Your task to perform on an android device: delete the emails in spam in the gmail app Image 0: 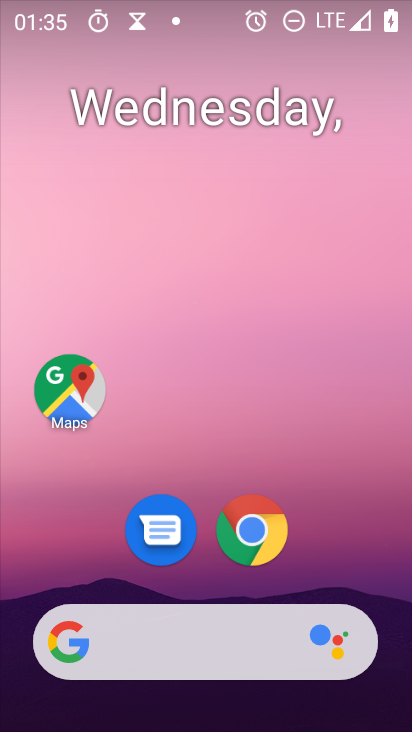
Step 0: drag from (206, 618) to (239, 33)
Your task to perform on an android device: delete the emails in spam in the gmail app Image 1: 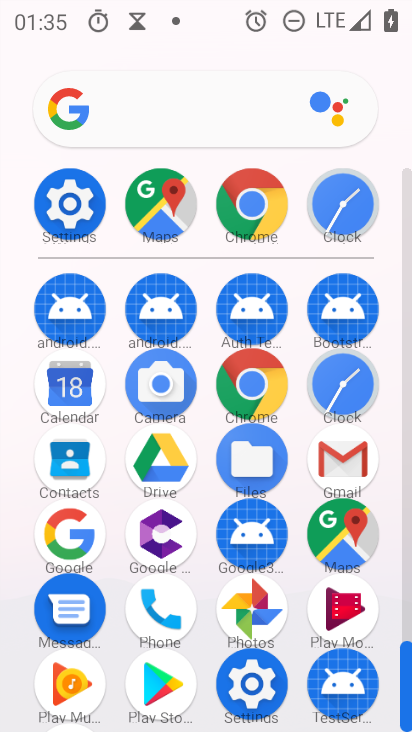
Step 1: click (334, 457)
Your task to perform on an android device: delete the emails in spam in the gmail app Image 2: 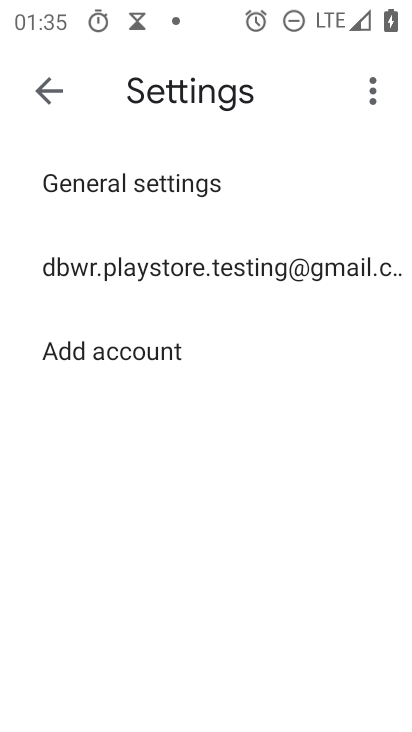
Step 2: press back button
Your task to perform on an android device: delete the emails in spam in the gmail app Image 3: 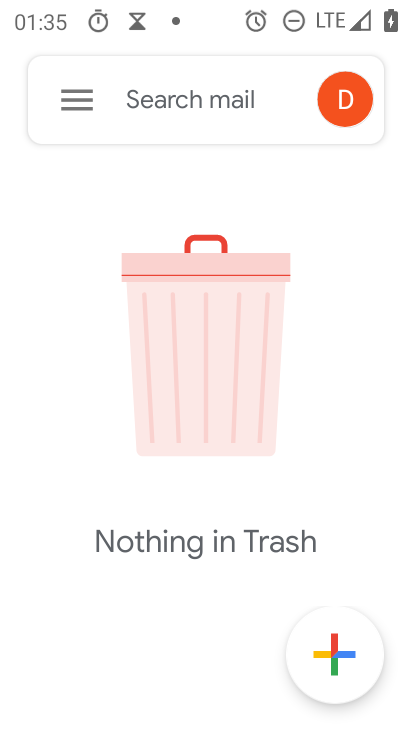
Step 3: click (82, 99)
Your task to perform on an android device: delete the emails in spam in the gmail app Image 4: 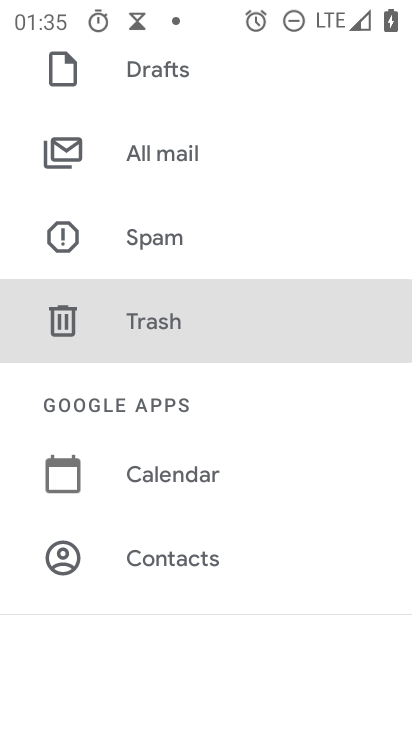
Step 4: click (235, 255)
Your task to perform on an android device: delete the emails in spam in the gmail app Image 5: 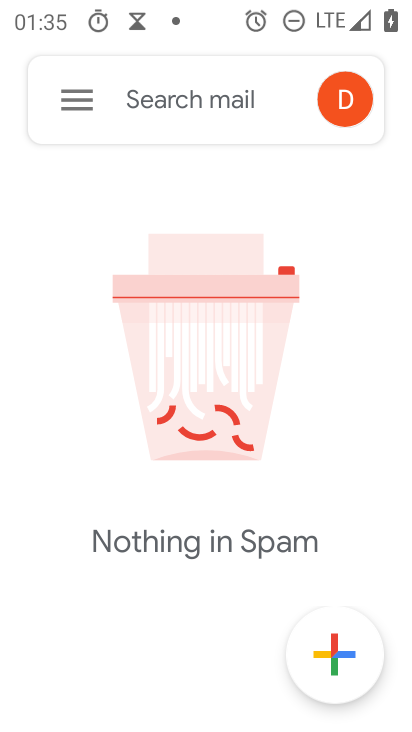
Step 5: task complete